Your task to perform on an android device: turn off improve location accuracy Image 0: 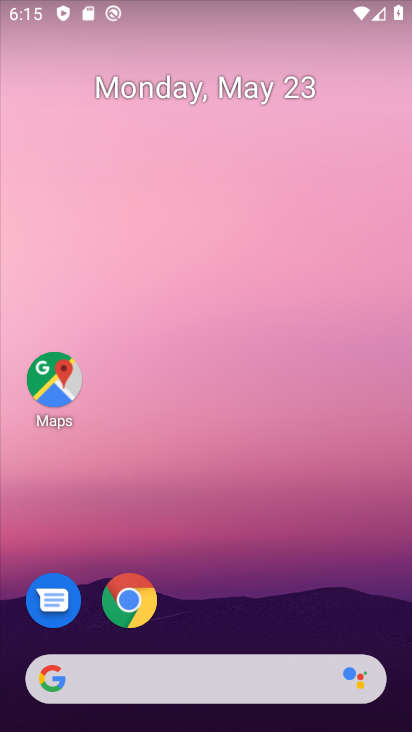
Step 0: drag from (234, 551) to (213, 164)
Your task to perform on an android device: turn off improve location accuracy Image 1: 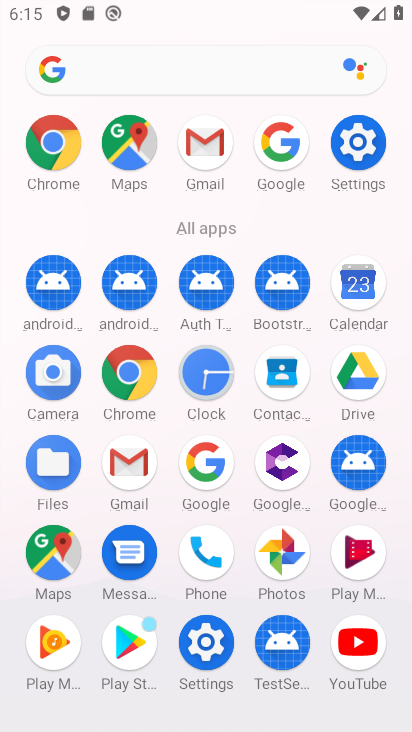
Step 1: click (355, 155)
Your task to perform on an android device: turn off improve location accuracy Image 2: 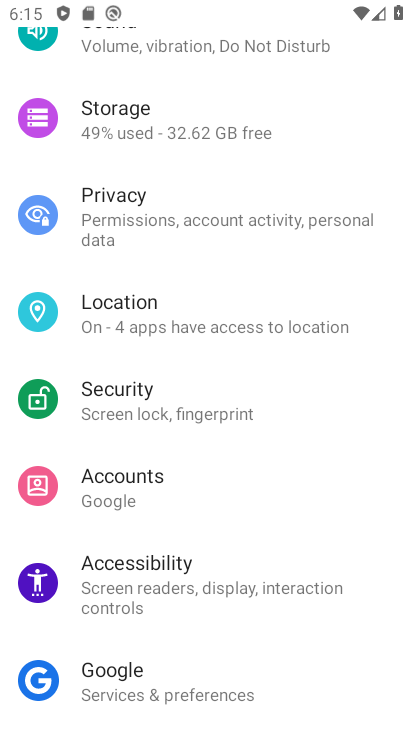
Step 2: click (223, 312)
Your task to perform on an android device: turn off improve location accuracy Image 3: 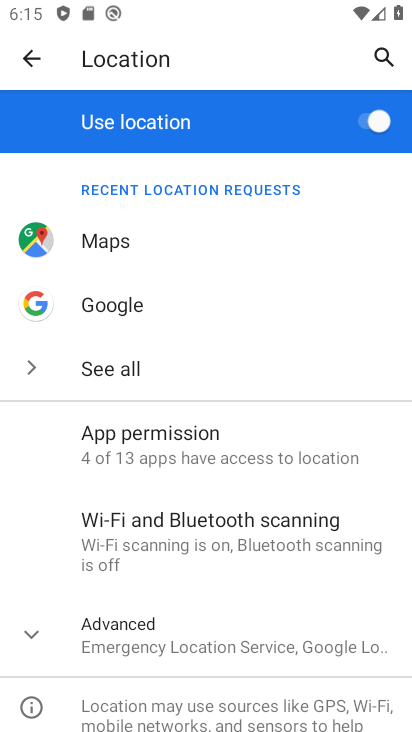
Step 3: click (178, 647)
Your task to perform on an android device: turn off improve location accuracy Image 4: 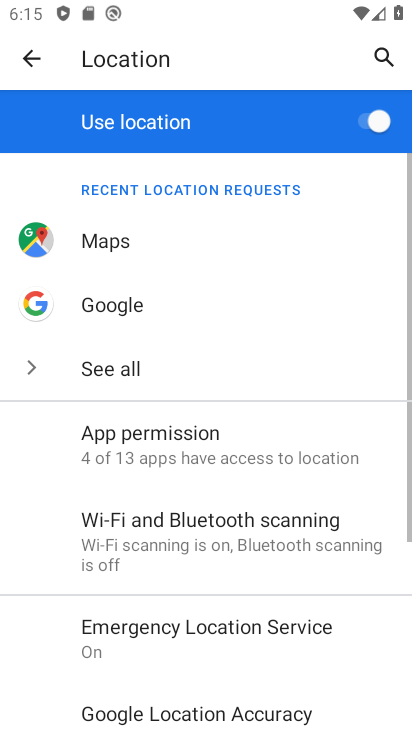
Step 4: drag from (175, 600) to (189, 308)
Your task to perform on an android device: turn off improve location accuracy Image 5: 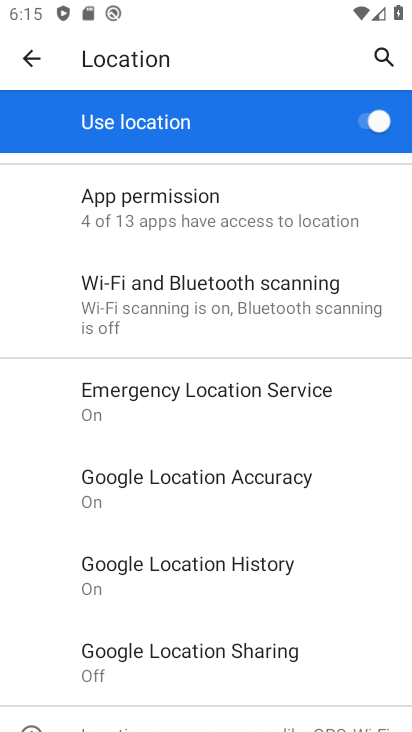
Step 5: click (191, 498)
Your task to perform on an android device: turn off improve location accuracy Image 6: 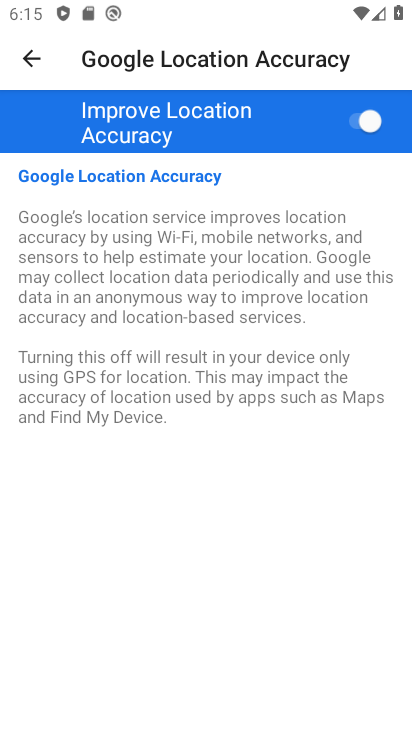
Step 6: click (369, 119)
Your task to perform on an android device: turn off improve location accuracy Image 7: 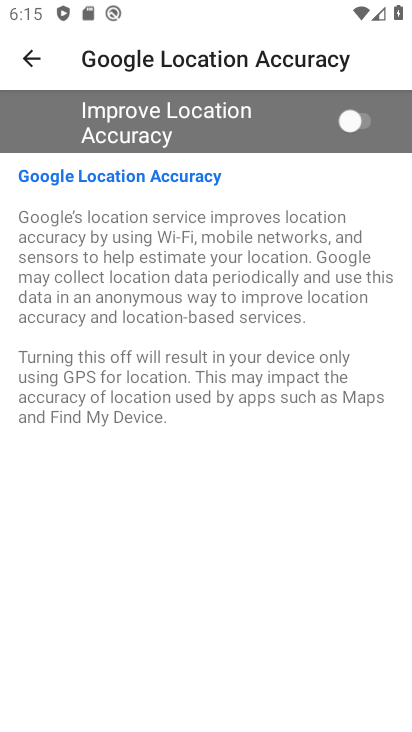
Step 7: task complete